Your task to perform on an android device: turn off picture-in-picture Image 0: 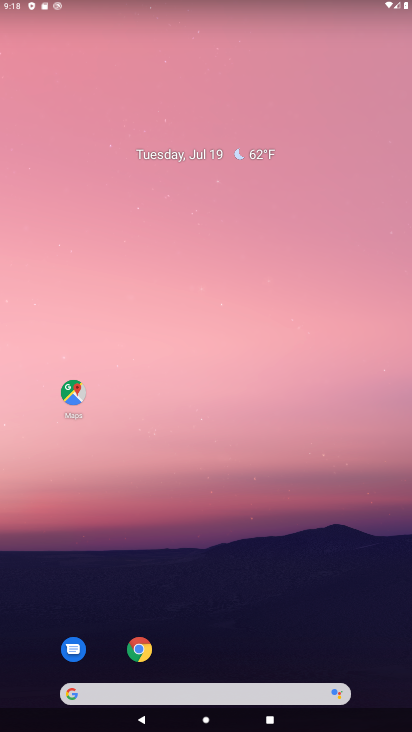
Step 0: drag from (164, 647) to (286, 3)
Your task to perform on an android device: turn off picture-in-picture Image 1: 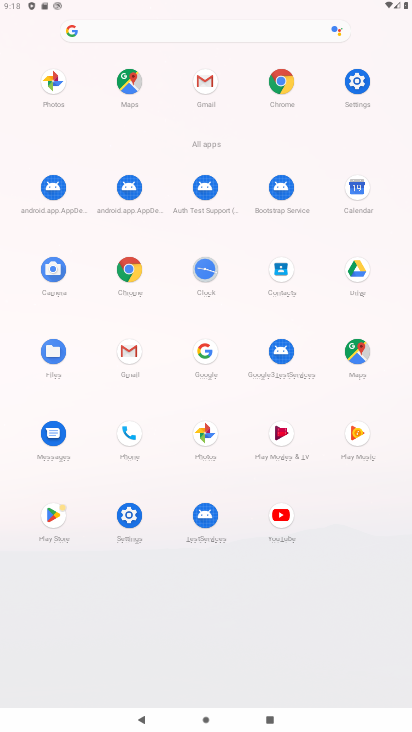
Step 1: click (366, 75)
Your task to perform on an android device: turn off picture-in-picture Image 2: 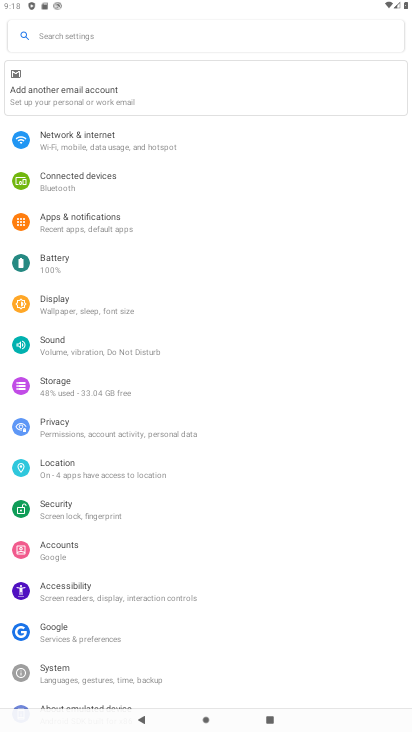
Step 2: click (66, 232)
Your task to perform on an android device: turn off picture-in-picture Image 3: 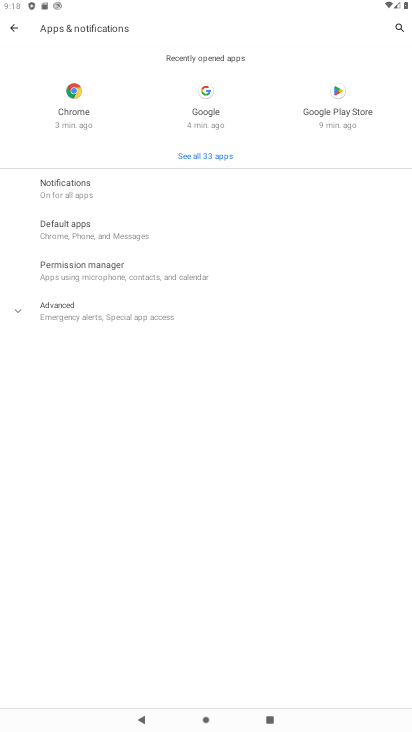
Step 3: click (92, 308)
Your task to perform on an android device: turn off picture-in-picture Image 4: 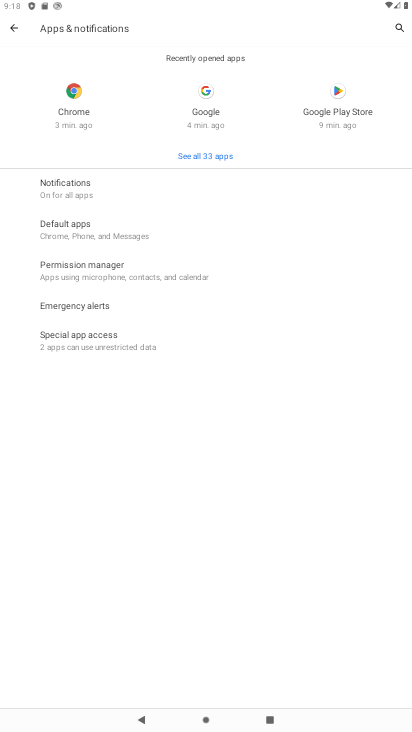
Step 4: click (77, 337)
Your task to perform on an android device: turn off picture-in-picture Image 5: 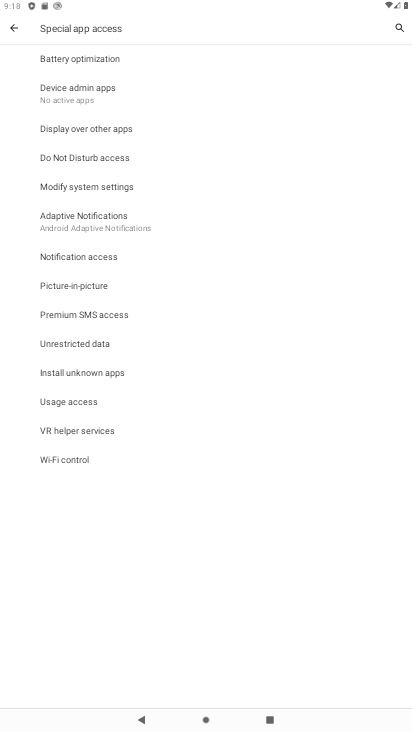
Step 5: click (118, 282)
Your task to perform on an android device: turn off picture-in-picture Image 6: 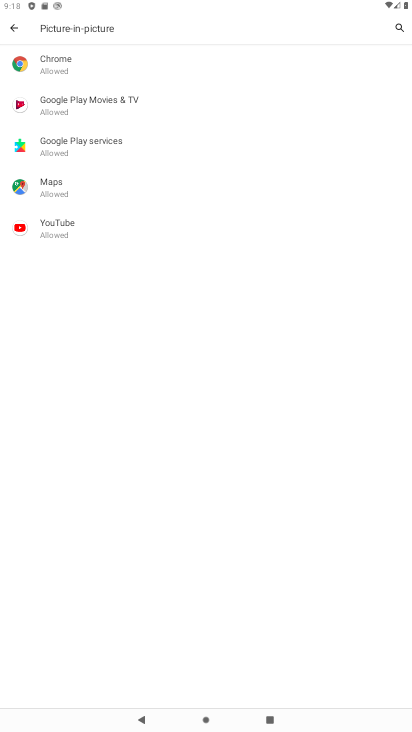
Step 6: click (104, 64)
Your task to perform on an android device: turn off picture-in-picture Image 7: 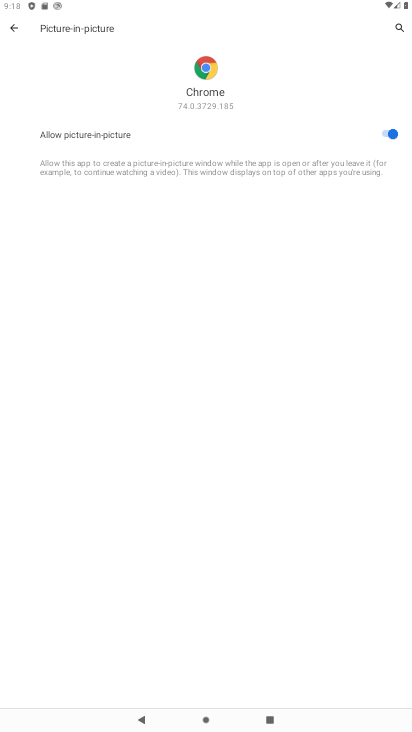
Step 7: click (394, 137)
Your task to perform on an android device: turn off picture-in-picture Image 8: 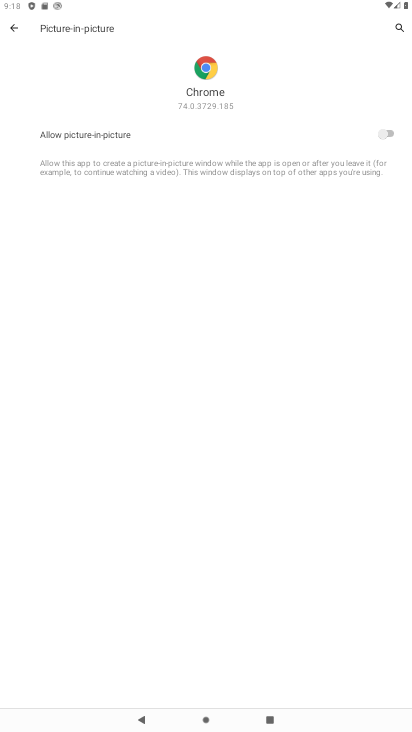
Step 8: press back button
Your task to perform on an android device: turn off picture-in-picture Image 9: 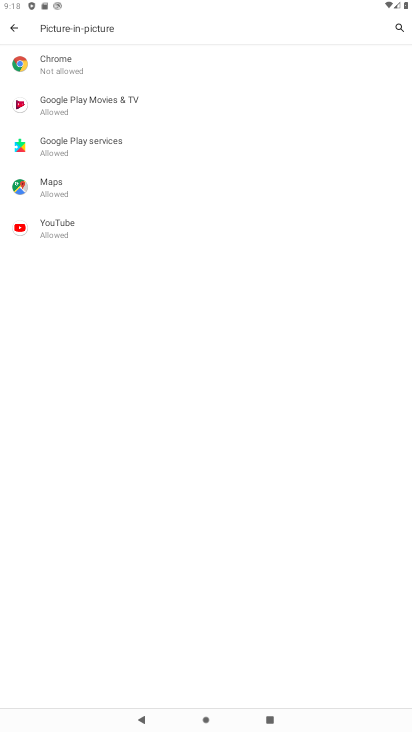
Step 9: click (134, 106)
Your task to perform on an android device: turn off picture-in-picture Image 10: 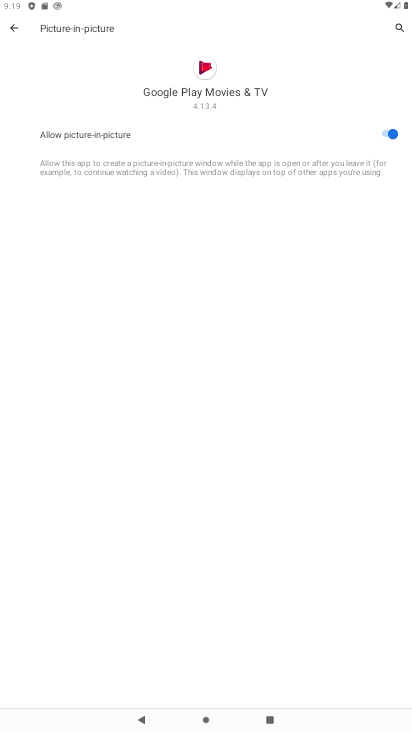
Step 10: click (389, 131)
Your task to perform on an android device: turn off picture-in-picture Image 11: 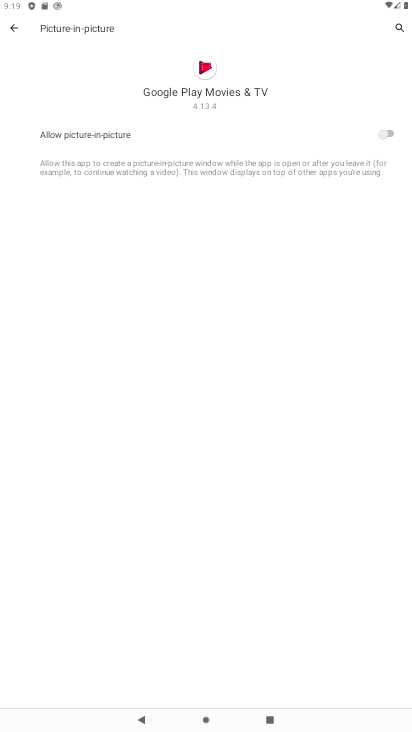
Step 11: press back button
Your task to perform on an android device: turn off picture-in-picture Image 12: 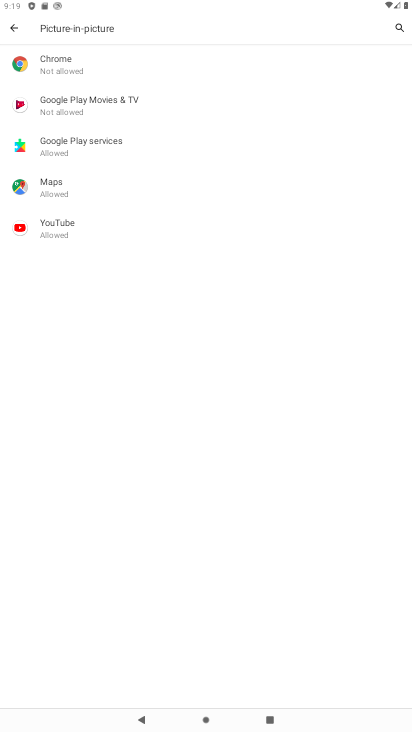
Step 12: click (78, 147)
Your task to perform on an android device: turn off picture-in-picture Image 13: 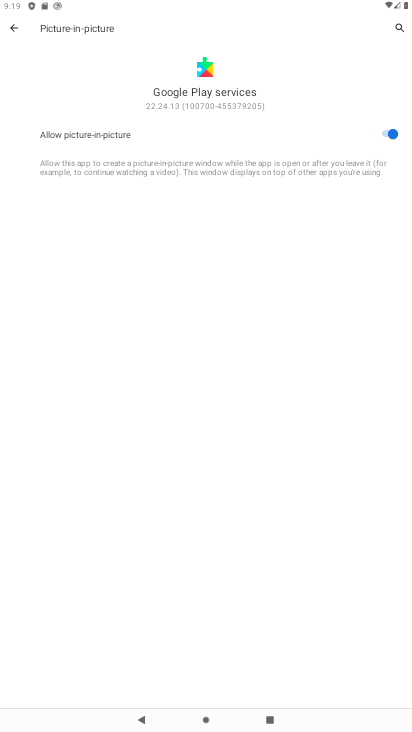
Step 13: click (387, 133)
Your task to perform on an android device: turn off picture-in-picture Image 14: 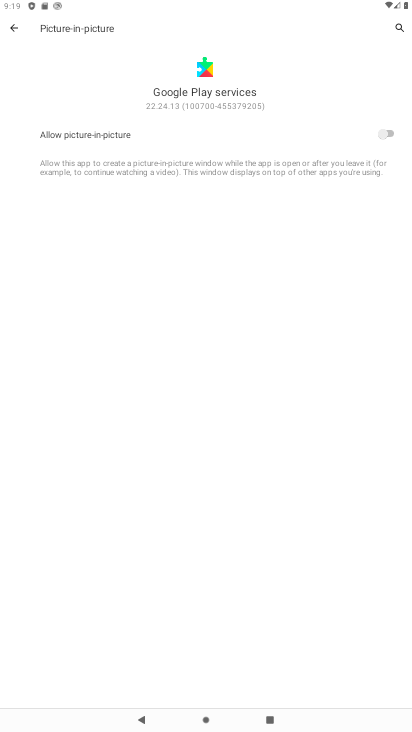
Step 14: press back button
Your task to perform on an android device: turn off picture-in-picture Image 15: 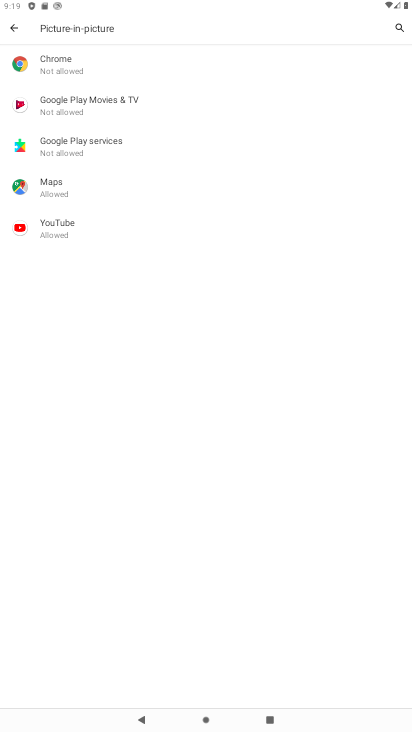
Step 15: click (78, 191)
Your task to perform on an android device: turn off picture-in-picture Image 16: 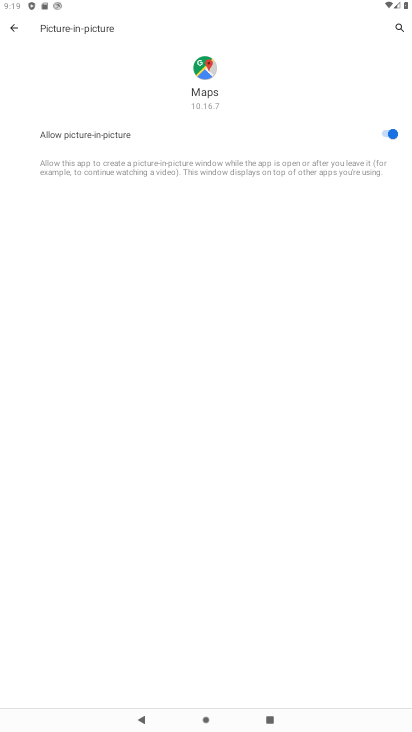
Step 16: click (387, 135)
Your task to perform on an android device: turn off picture-in-picture Image 17: 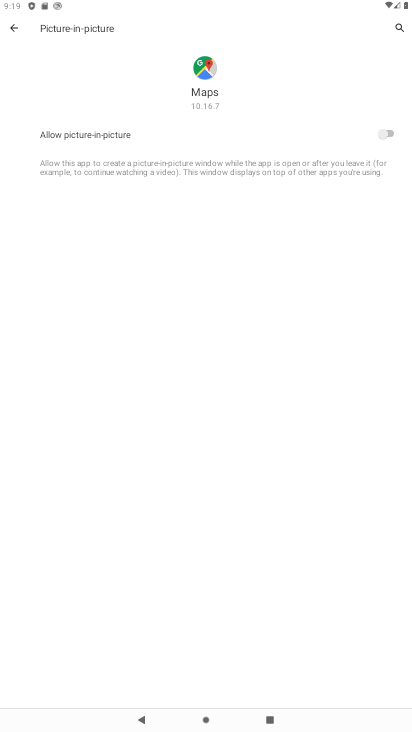
Step 17: press back button
Your task to perform on an android device: turn off picture-in-picture Image 18: 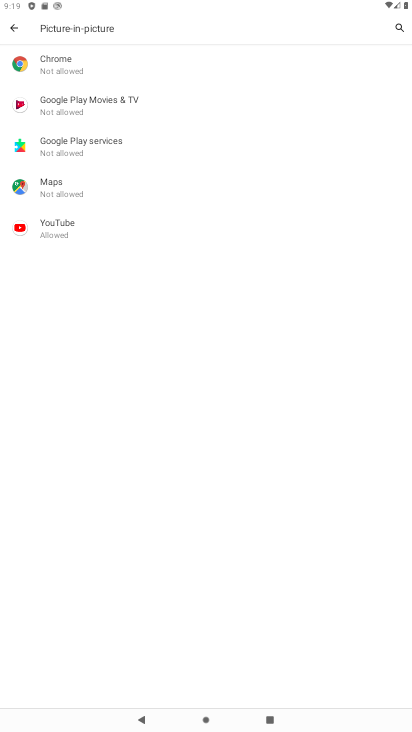
Step 18: click (62, 229)
Your task to perform on an android device: turn off picture-in-picture Image 19: 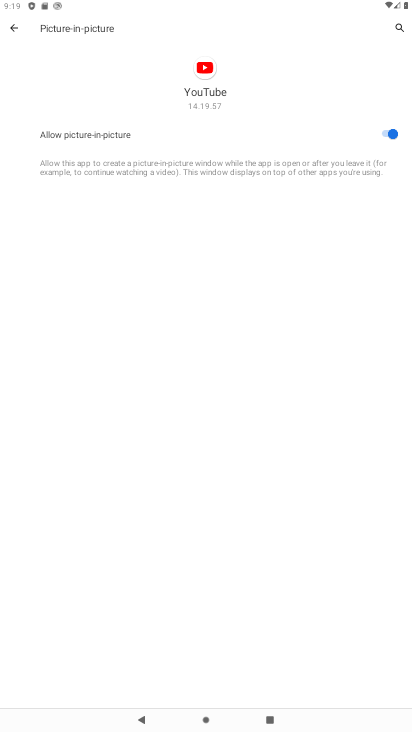
Step 19: click (389, 135)
Your task to perform on an android device: turn off picture-in-picture Image 20: 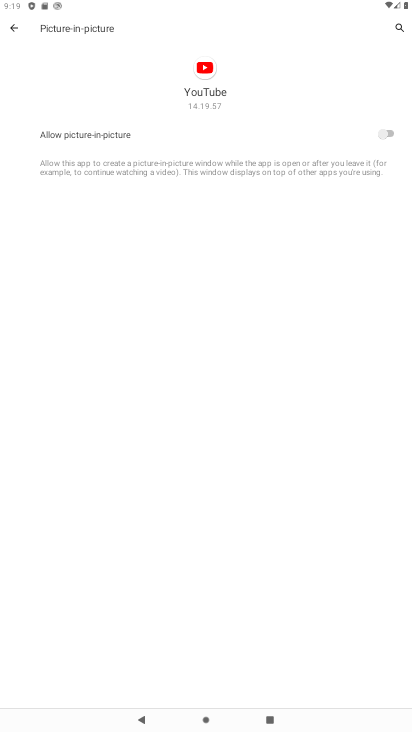
Step 20: task complete